Your task to perform on an android device: Search for usb-b on amazon.com, select the first entry, add it to the cart, then select checkout. Image 0: 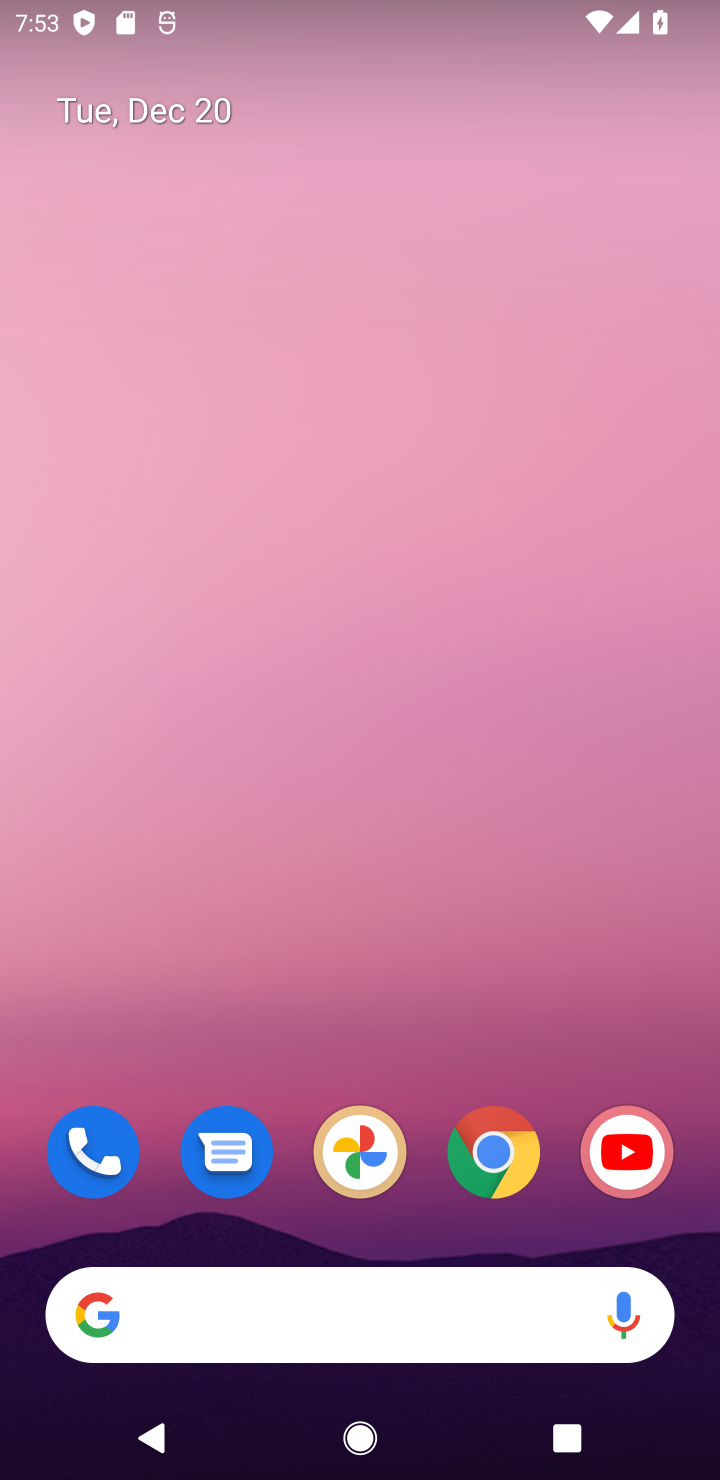
Step 0: click (500, 1160)
Your task to perform on an android device: Search for usb-b on amazon.com, select the first entry, add it to the cart, then select checkout. Image 1: 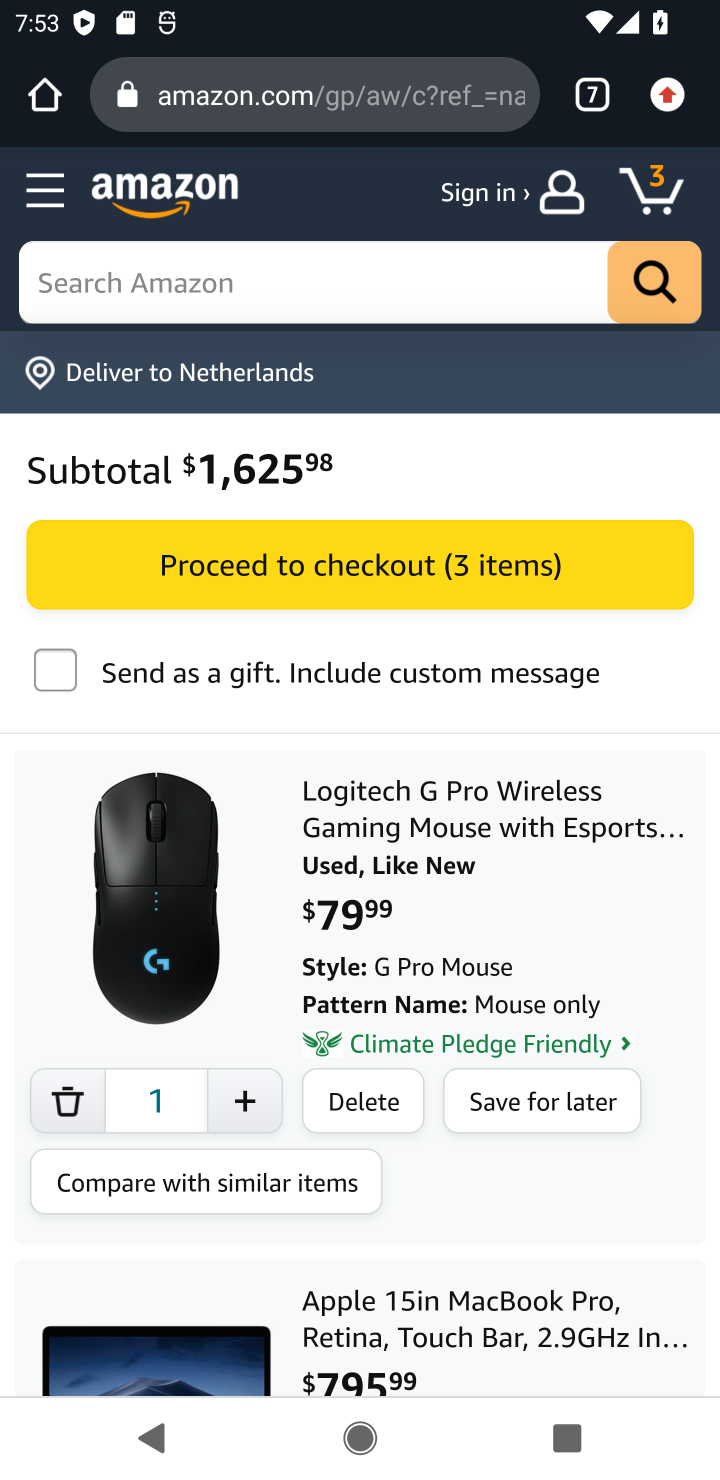
Step 1: click (159, 314)
Your task to perform on an android device: Search for usb-b on amazon.com, select the first entry, add it to the cart, then select checkout. Image 2: 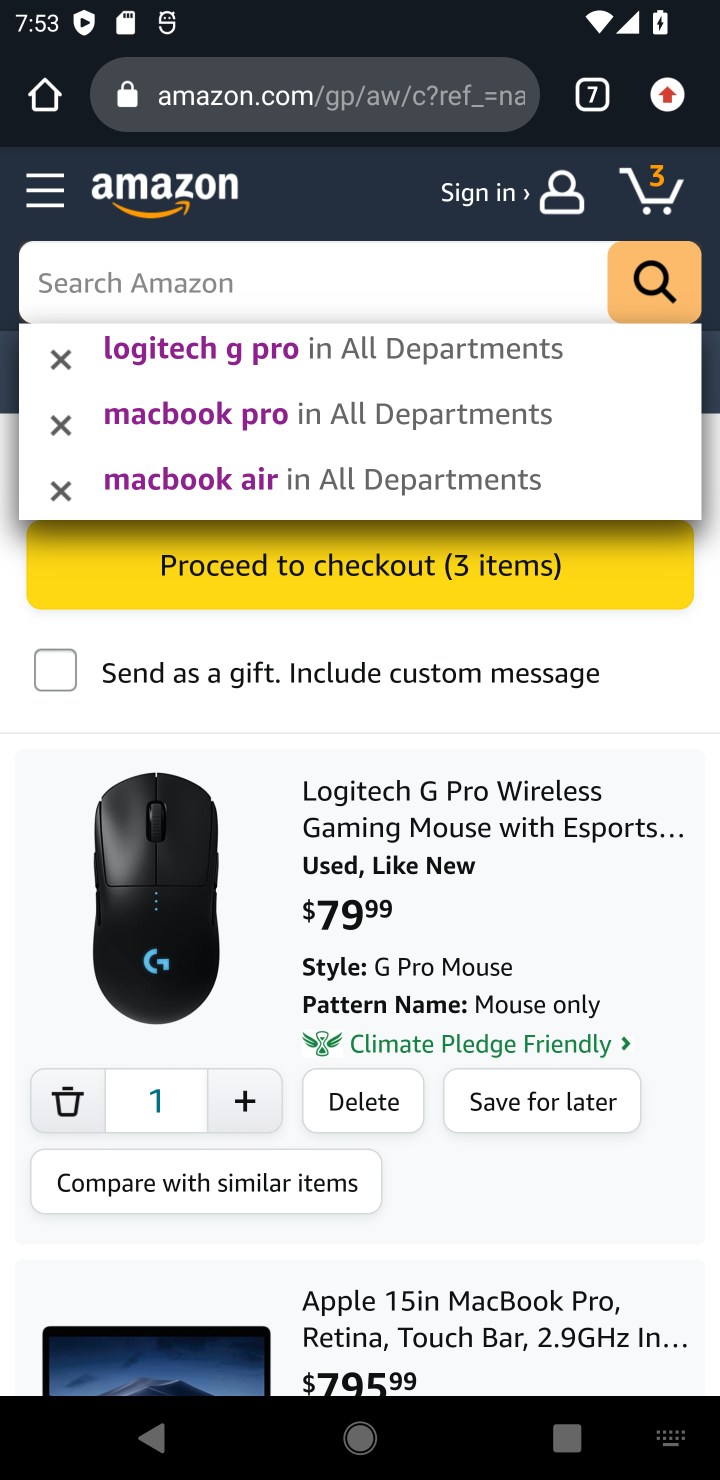
Step 2: type "usb-b"
Your task to perform on an android device: Search for usb-b on amazon.com, select the first entry, add it to the cart, then select checkout. Image 3: 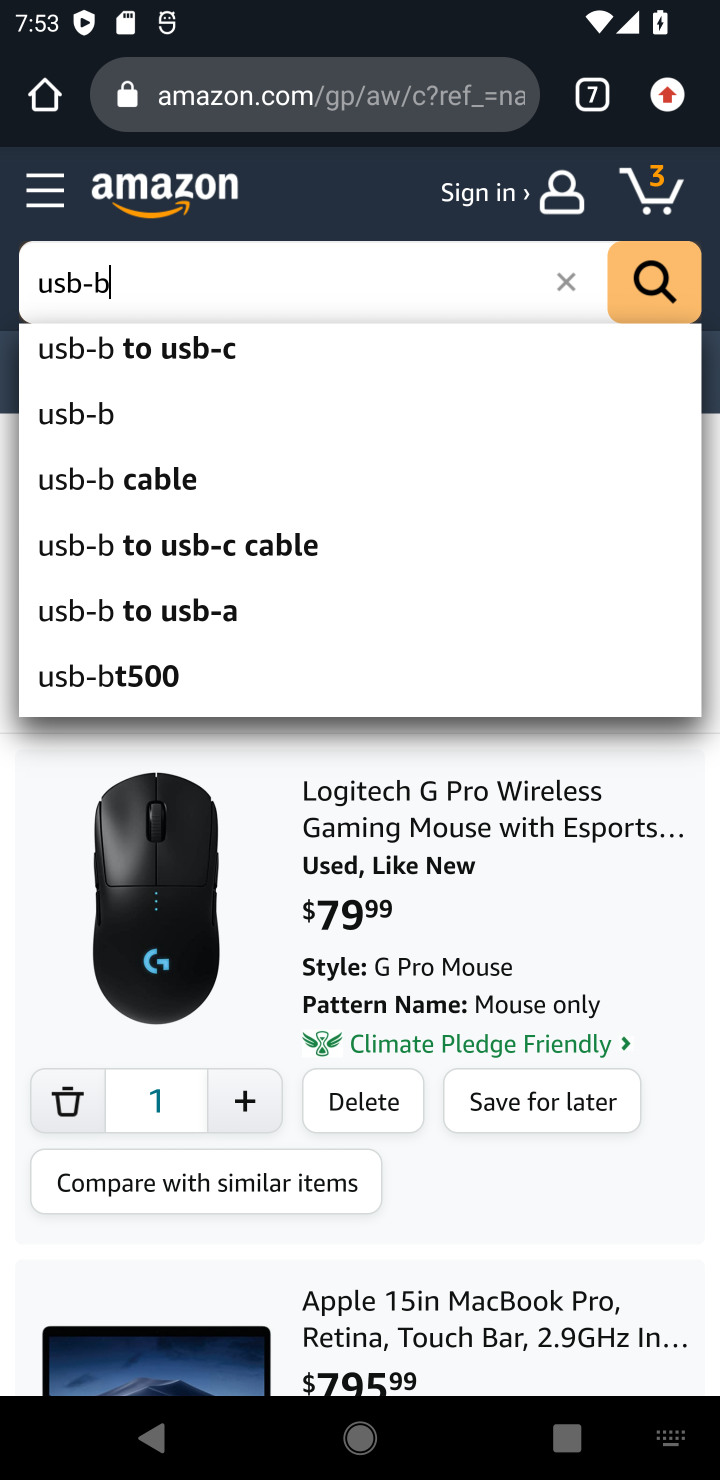
Step 3: click (107, 417)
Your task to perform on an android device: Search for usb-b on amazon.com, select the first entry, add it to the cart, then select checkout. Image 4: 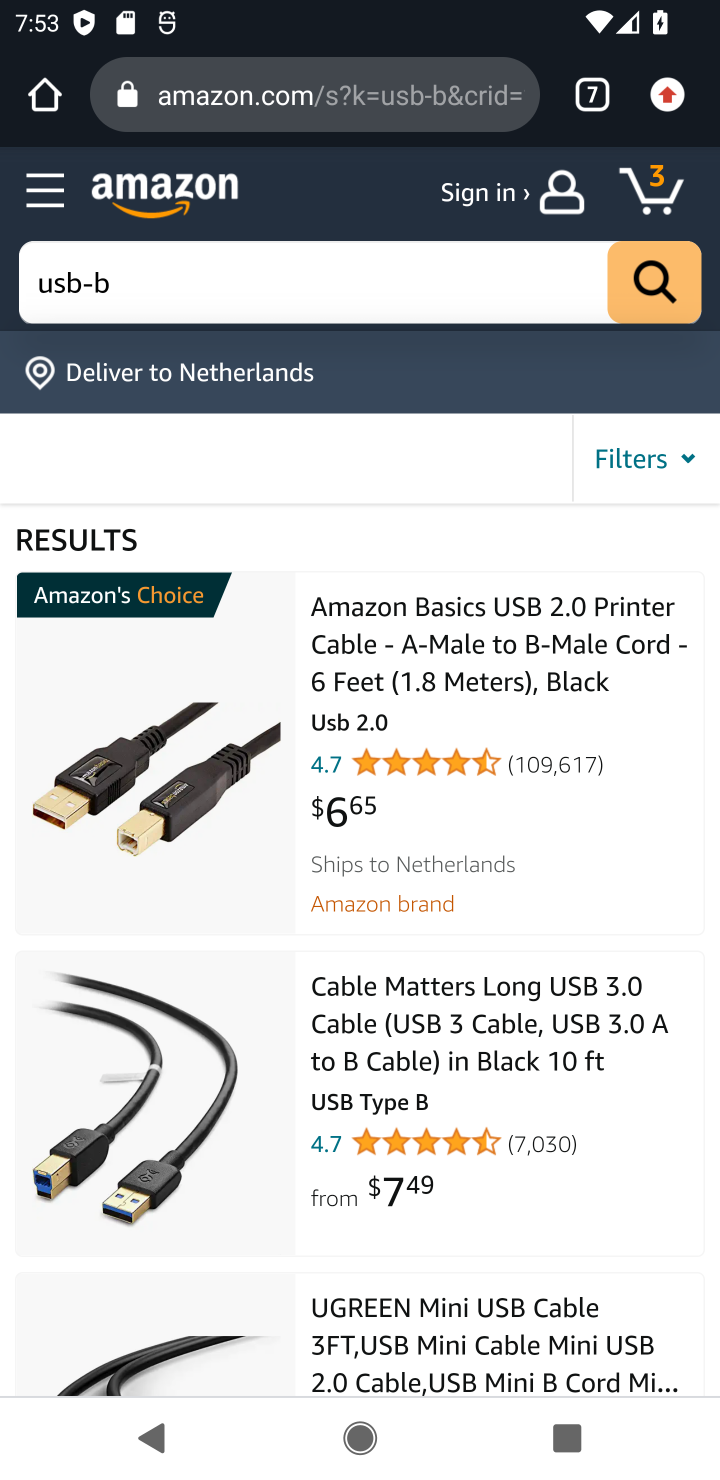
Step 4: click (404, 613)
Your task to perform on an android device: Search for usb-b on amazon.com, select the first entry, add it to the cart, then select checkout. Image 5: 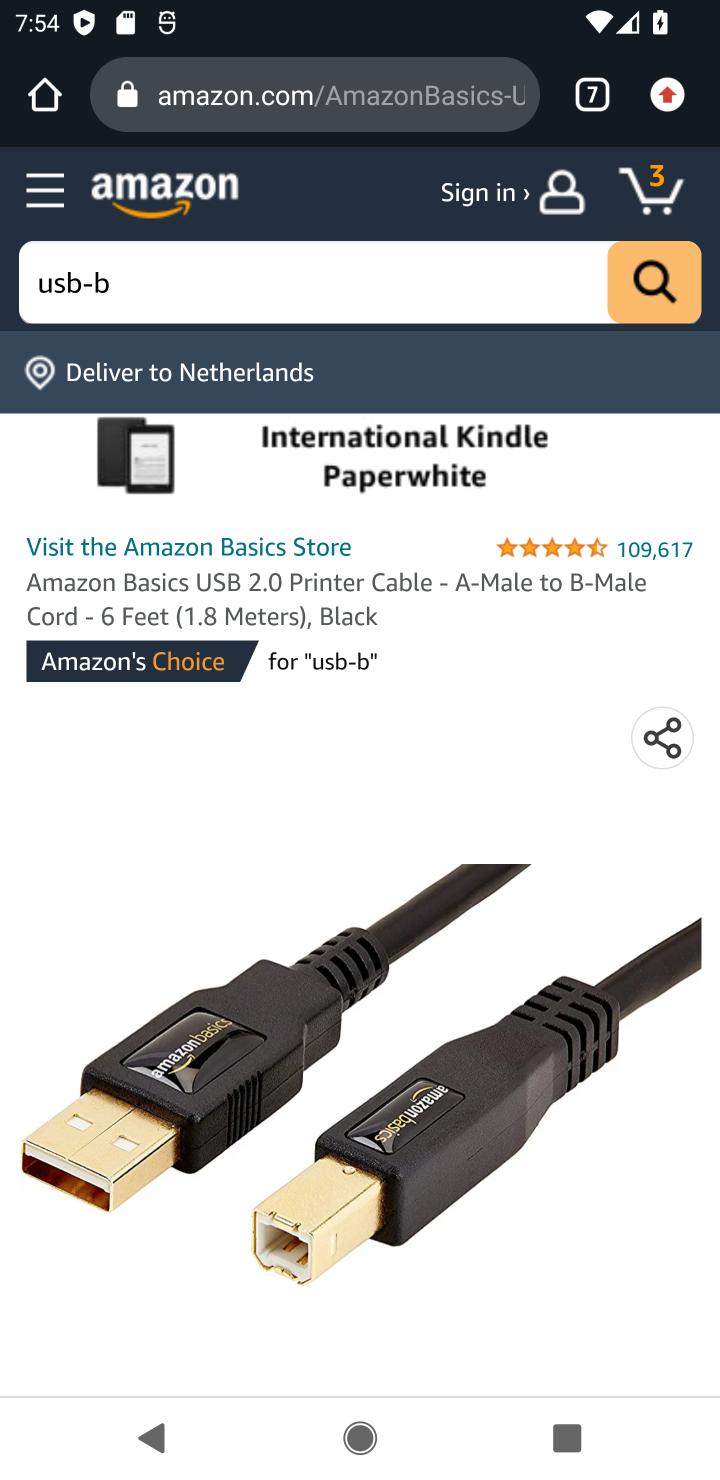
Step 5: drag from (371, 1110) to (549, 405)
Your task to perform on an android device: Search for usb-b on amazon.com, select the first entry, add it to the cart, then select checkout. Image 6: 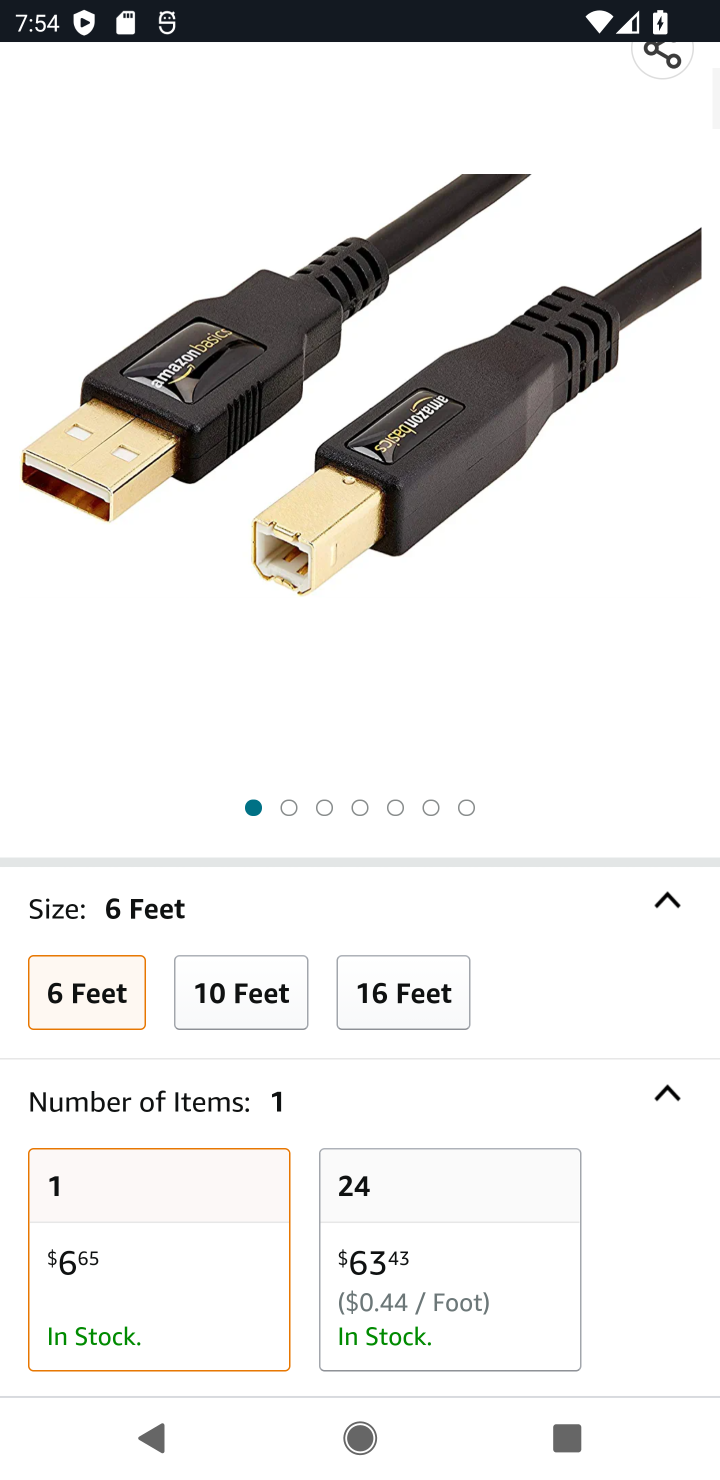
Step 6: drag from (290, 1273) to (706, 39)
Your task to perform on an android device: Search for usb-b on amazon.com, select the first entry, add it to the cart, then select checkout. Image 7: 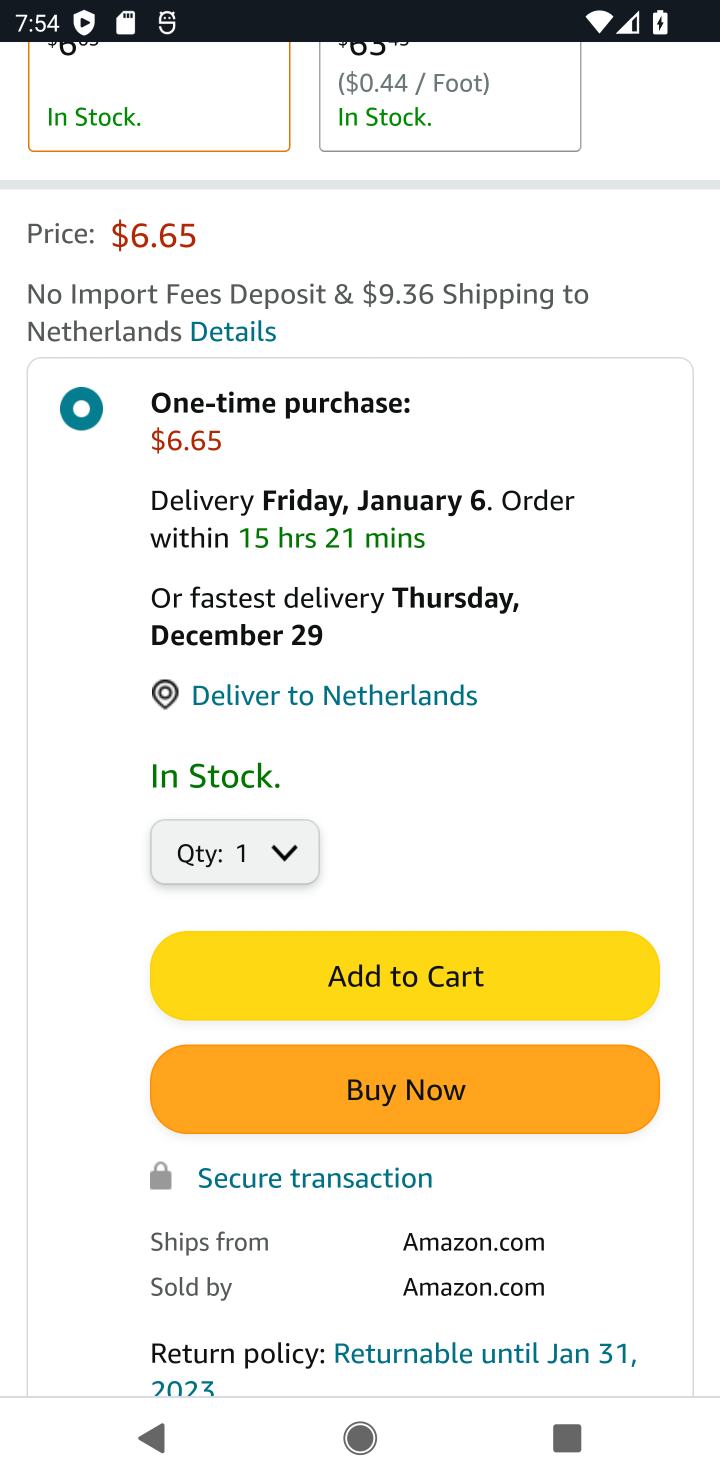
Step 7: drag from (354, 1333) to (549, 497)
Your task to perform on an android device: Search for usb-b on amazon.com, select the first entry, add it to the cart, then select checkout. Image 8: 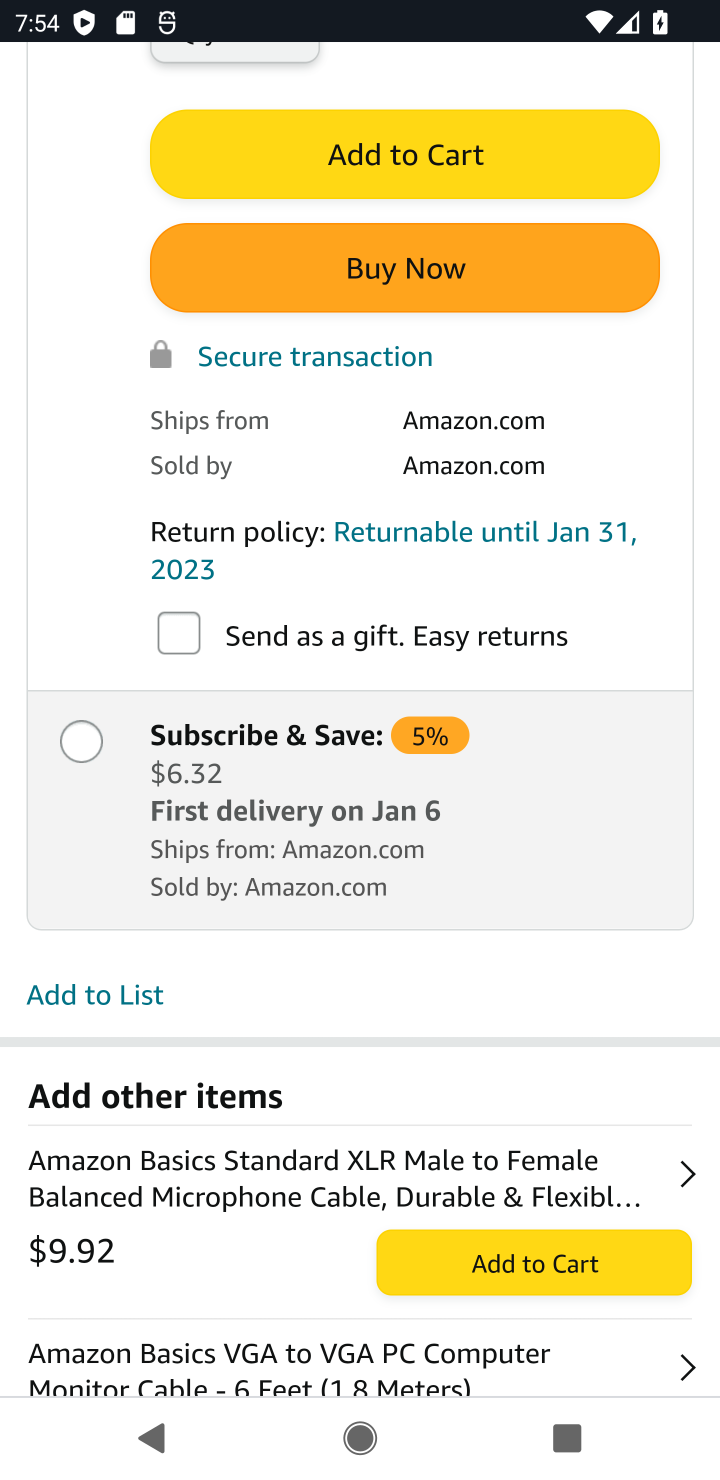
Step 8: click (510, 161)
Your task to perform on an android device: Search for usb-b on amazon.com, select the first entry, add it to the cart, then select checkout. Image 9: 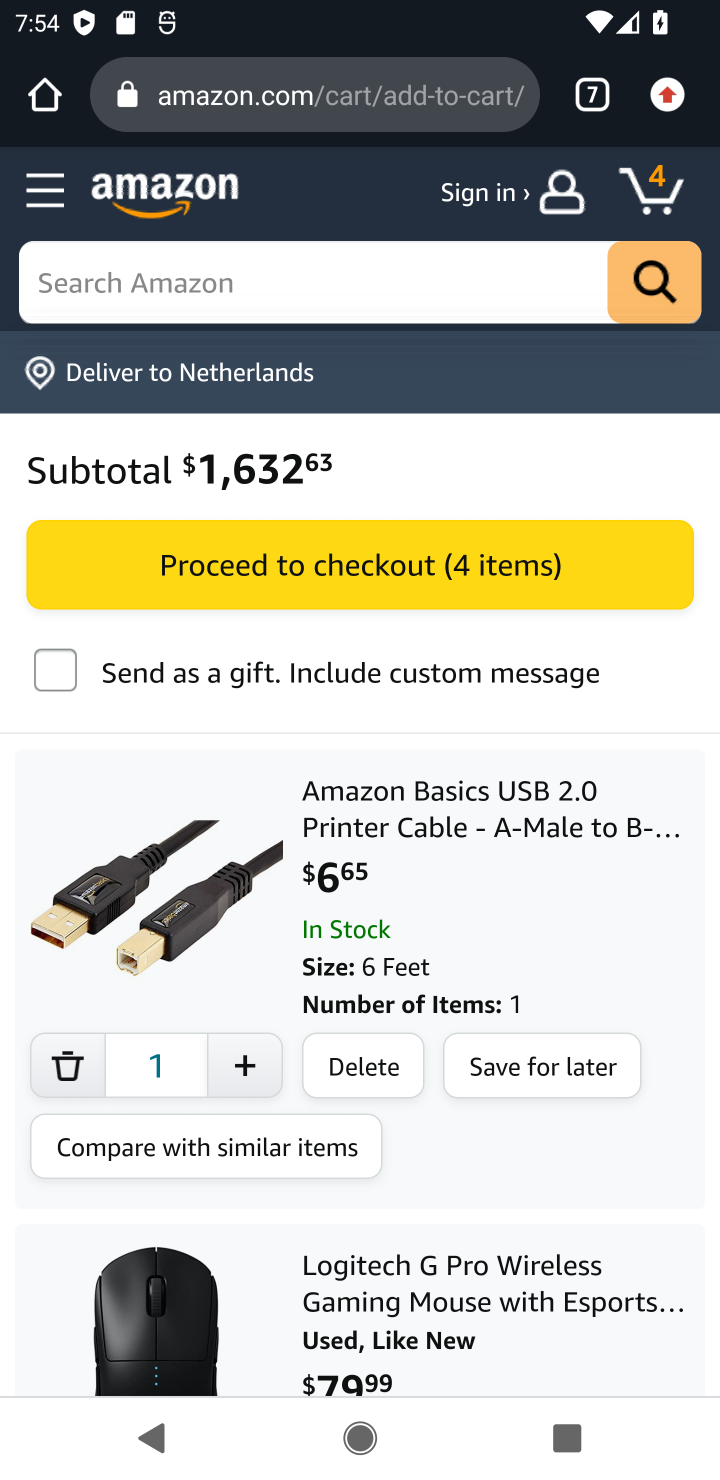
Step 9: task complete